Your task to perform on an android device: Empty the shopping cart on bestbuy. Add razer huntsman to the cart on bestbuy, then select checkout. Image 0: 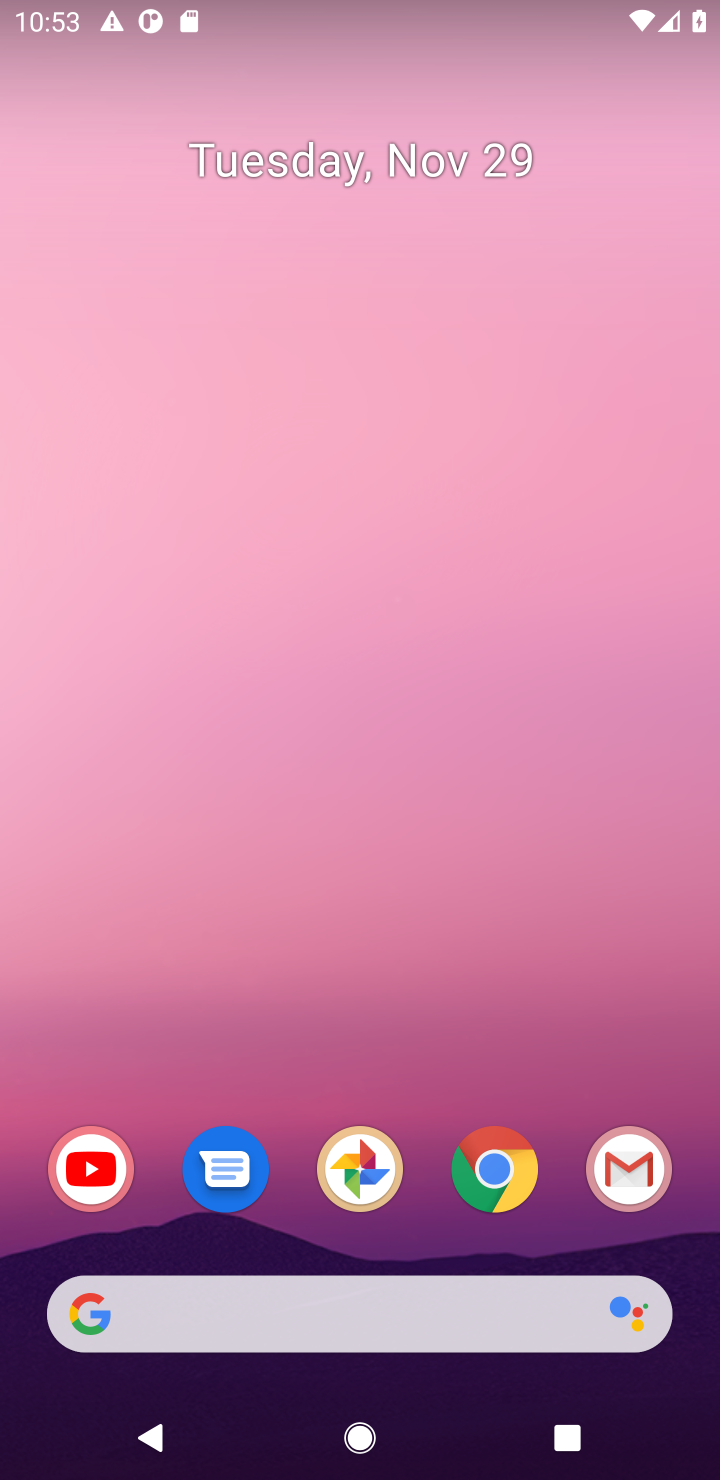
Step 0: click (398, 1322)
Your task to perform on an android device: Empty the shopping cart on bestbuy. Add razer huntsman to the cart on bestbuy, then select checkout. Image 1: 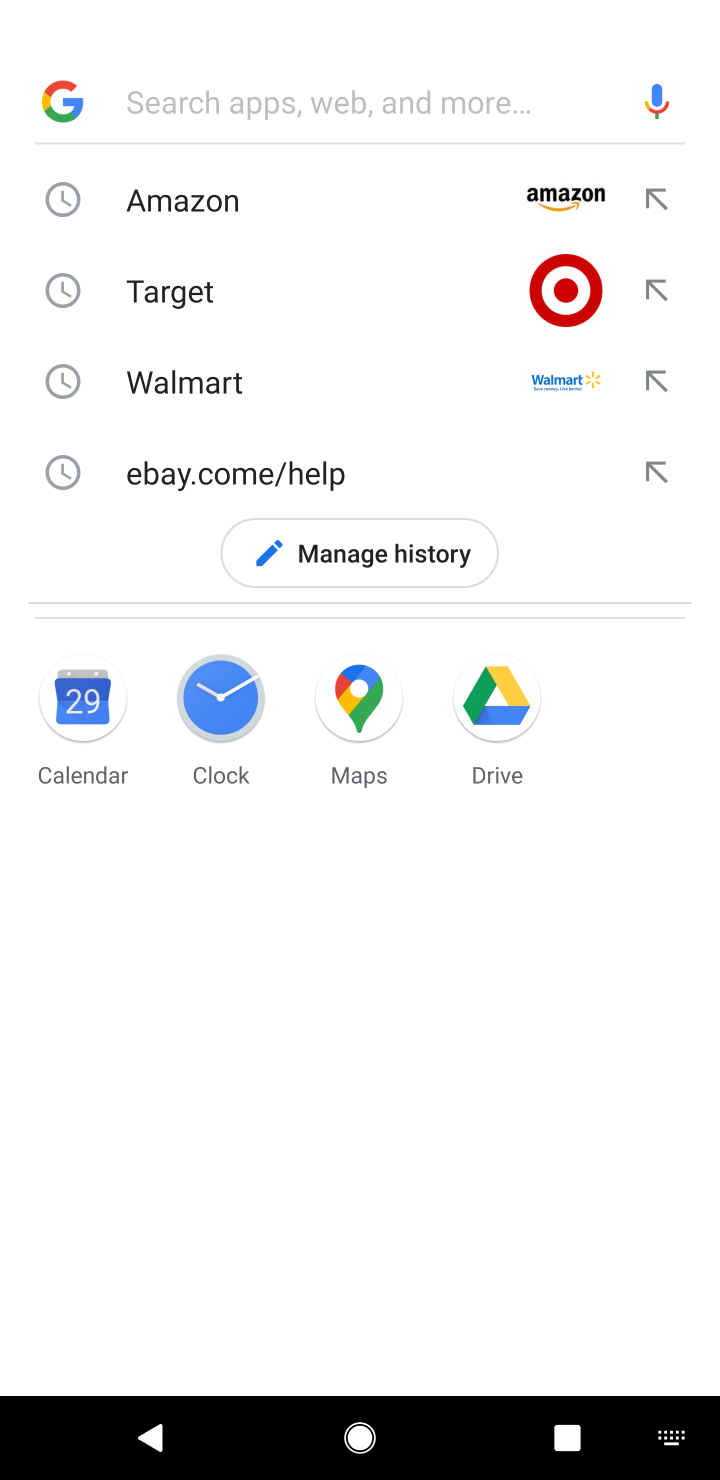
Step 1: type "bestbuy"
Your task to perform on an android device: Empty the shopping cart on bestbuy. Add razer huntsman to the cart on bestbuy, then select checkout. Image 2: 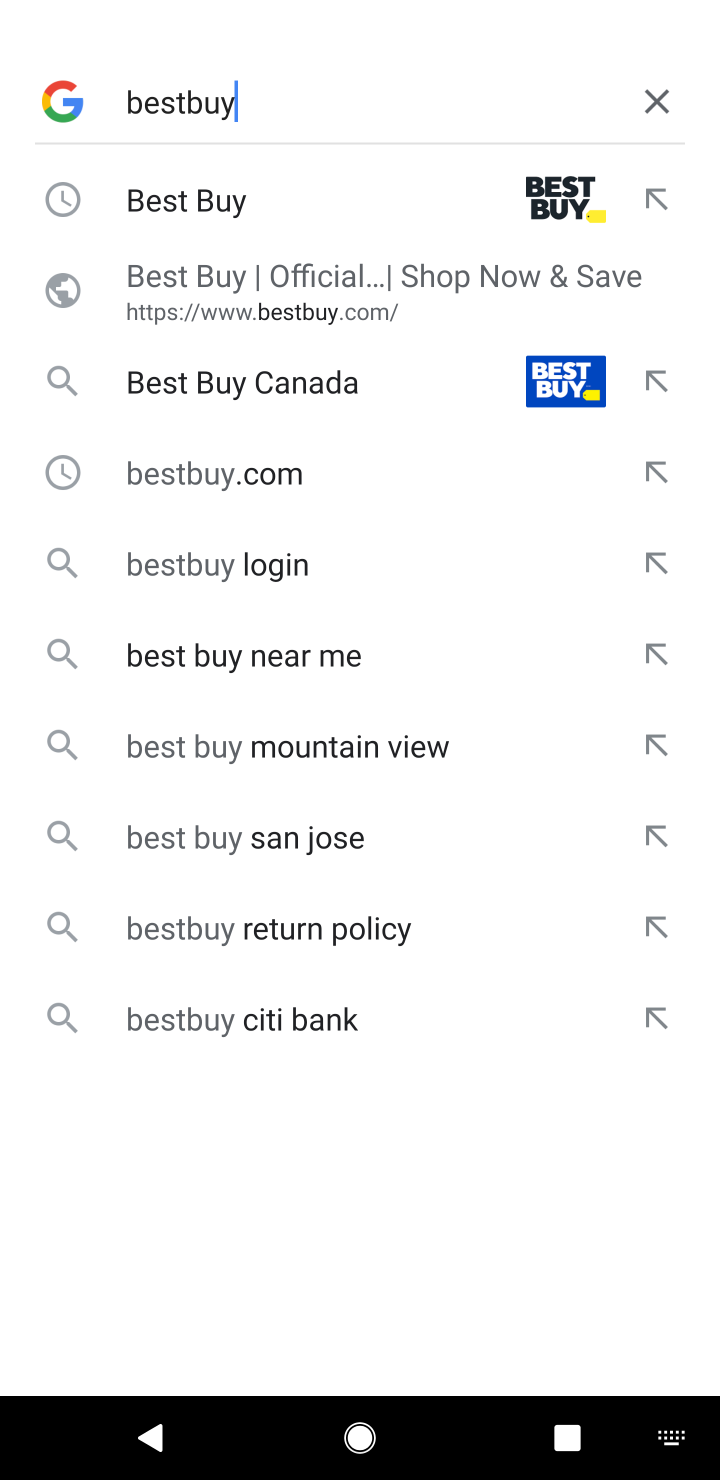
Step 2: click (266, 209)
Your task to perform on an android device: Empty the shopping cart on bestbuy. Add razer huntsman to the cart on bestbuy, then select checkout. Image 3: 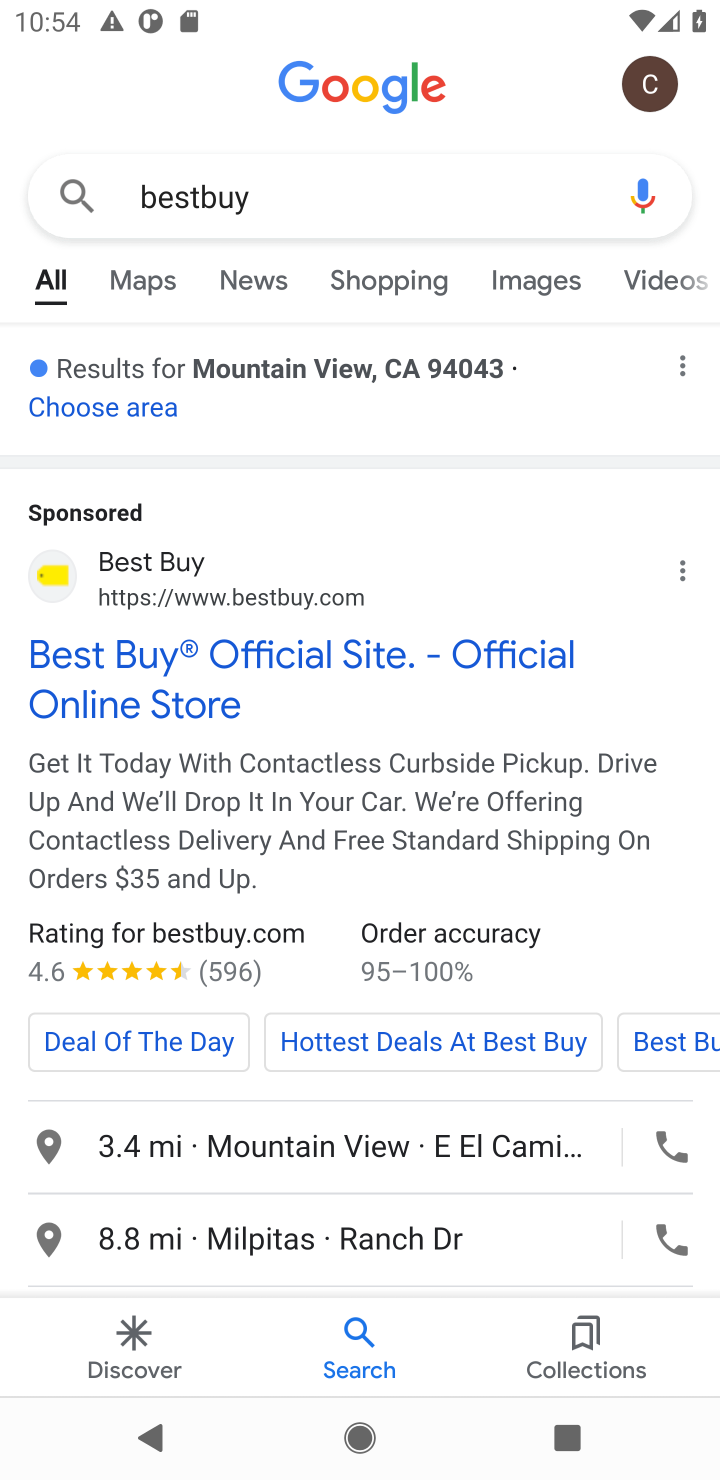
Step 3: click (163, 639)
Your task to perform on an android device: Empty the shopping cart on bestbuy. Add razer huntsman to the cart on bestbuy, then select checkout. Image 4: 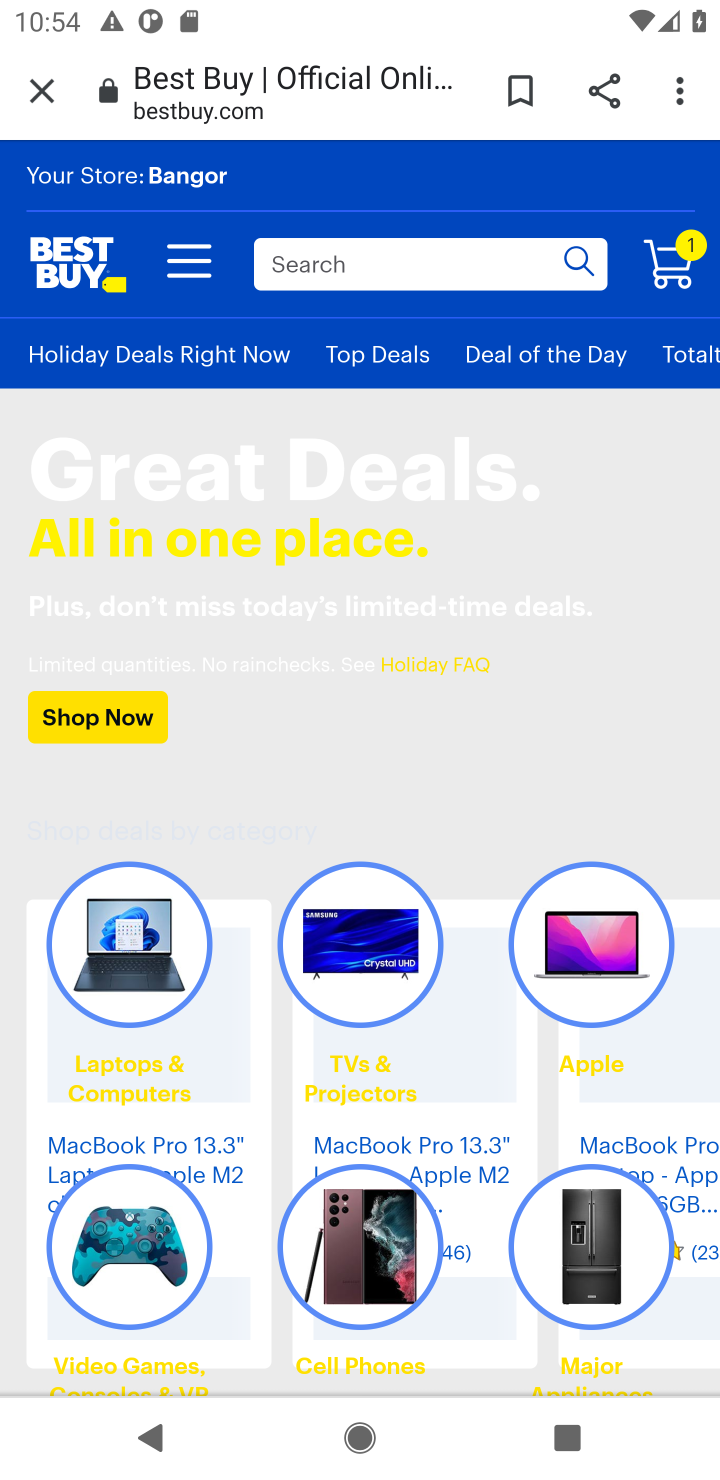
Step 4: click (325, 262)
Your task to perform on an android device: Empty the shopping cart on bestbuy. Add razer huntsman to the cart on bestbuy, then select checkout. Image 5: 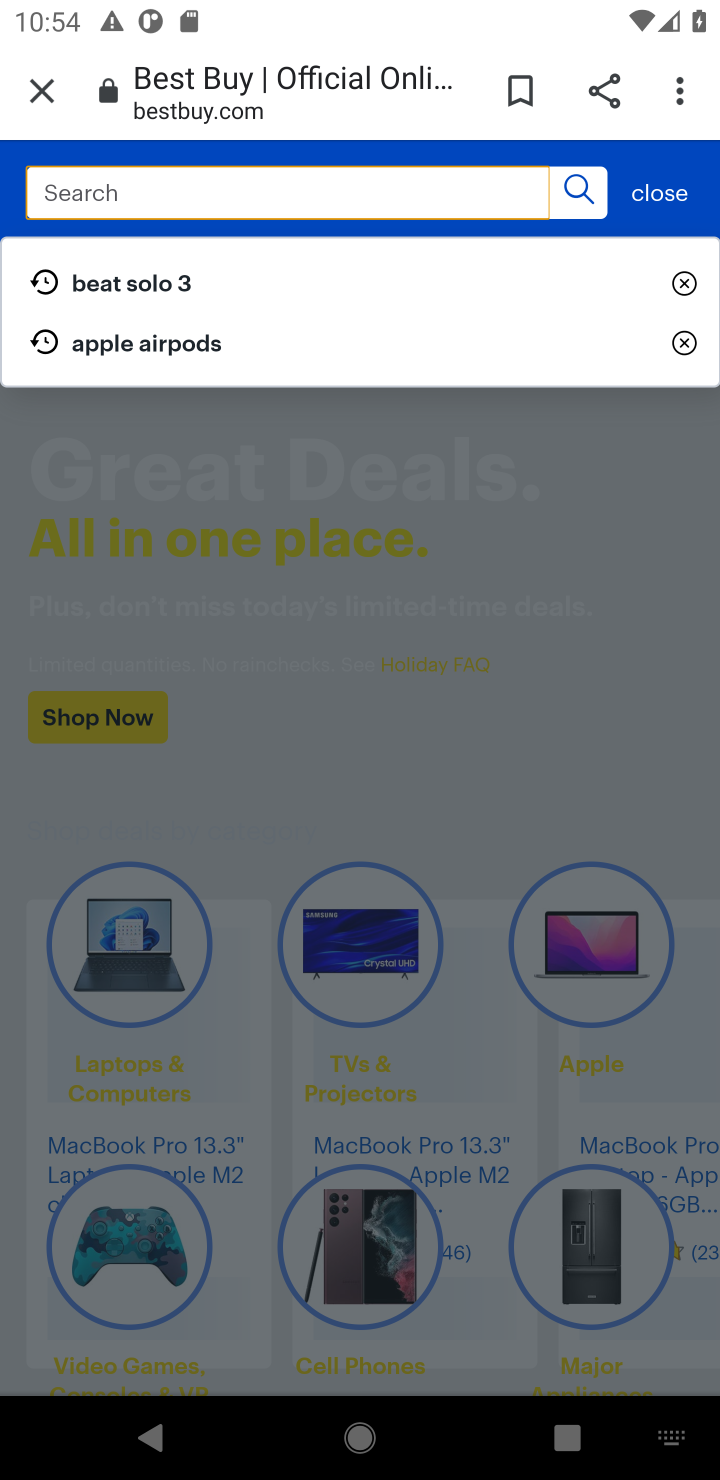
Step 5: type "razer huntsman"
Your task to perform on an android device: Empty the shopping cart on bestbuy. Add razer huntsman to the cart on bestbuy, then select checkout. Image 6: 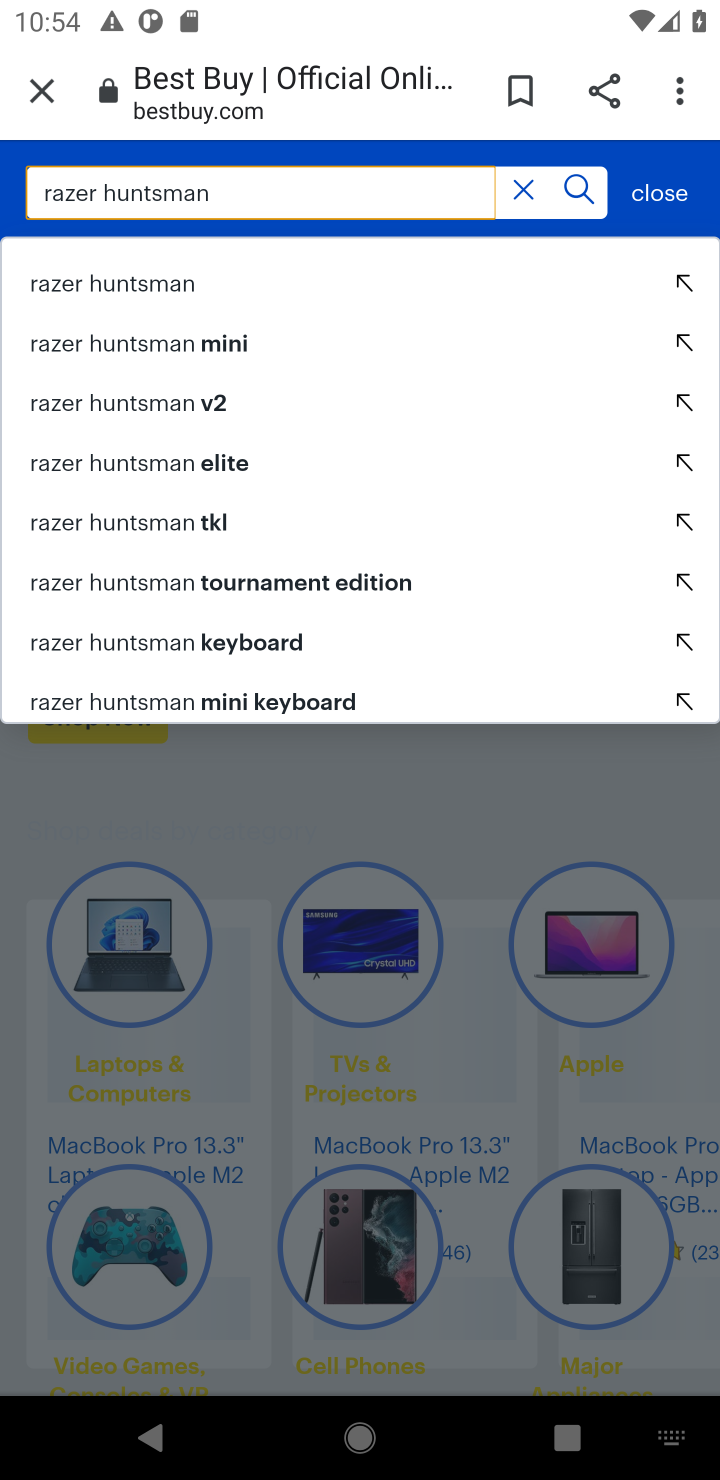
Step 6: click (59, 285)
Your task to perform on an android device: Empty the shopping cart on bestbuy. Add razer huntsman to the cart on bestbuy, then select checkout. Image 7: 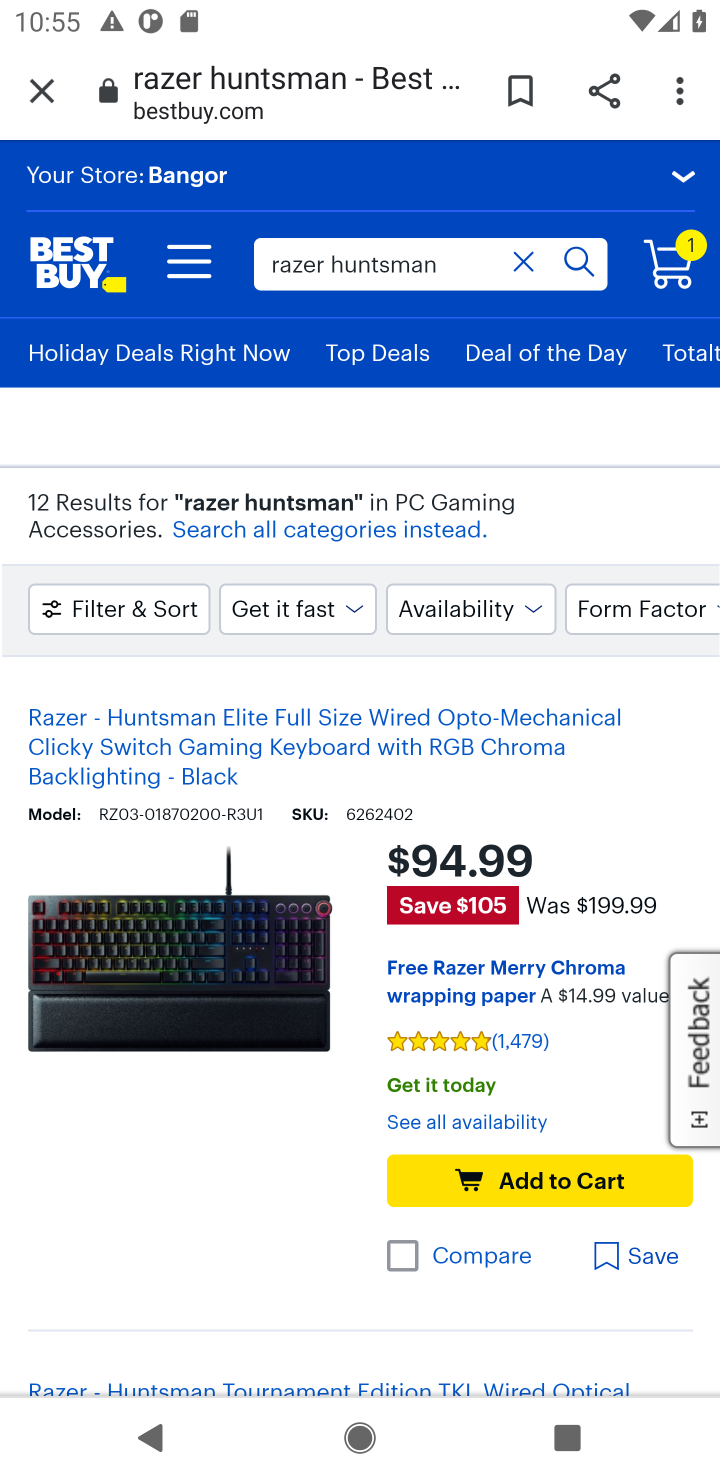
Step 7: click (510, 1198)
Your task to perform on an android device: Empty the shopping cart on bestbuy. Add razer huntsman to the cart on bestbuy, then select checkout. Image 8: 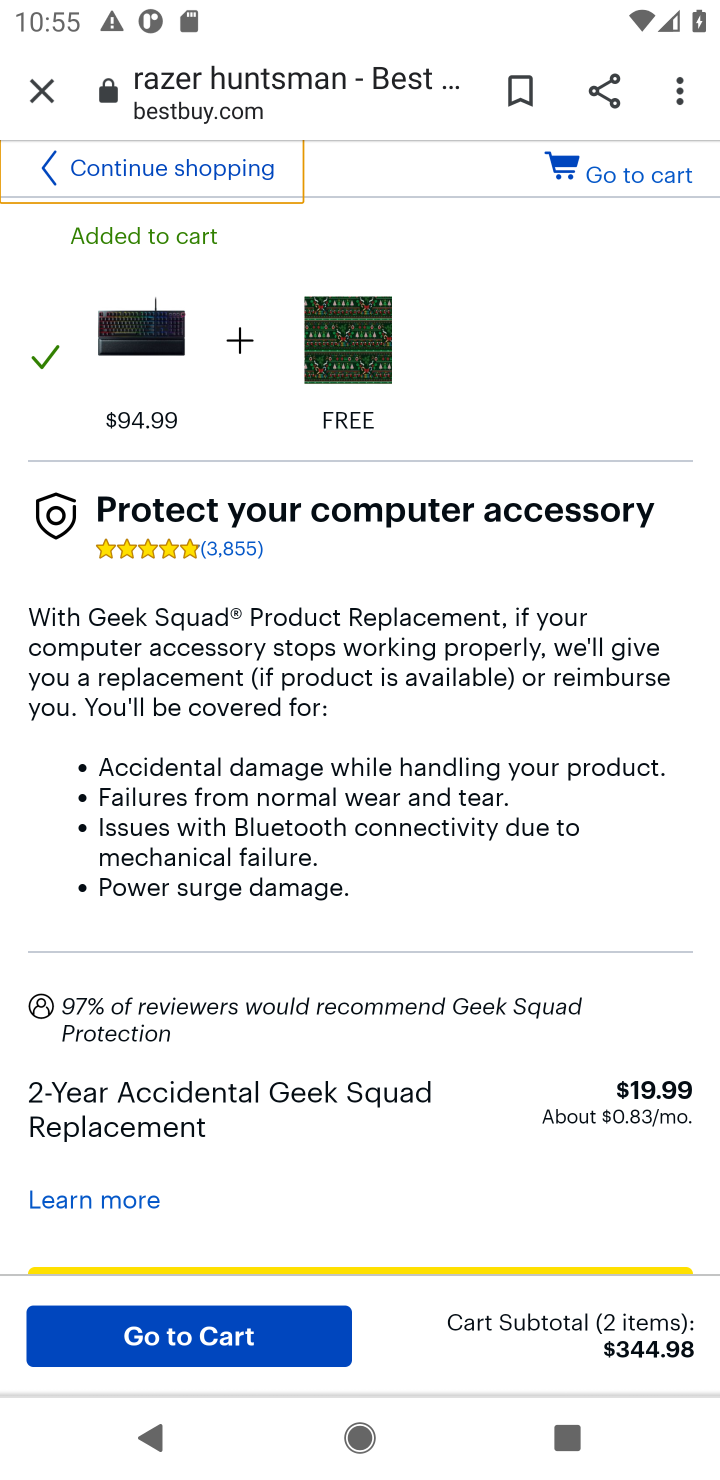
Step 8: task complete